Your task to perform on an android device: Open display settings Image 0: 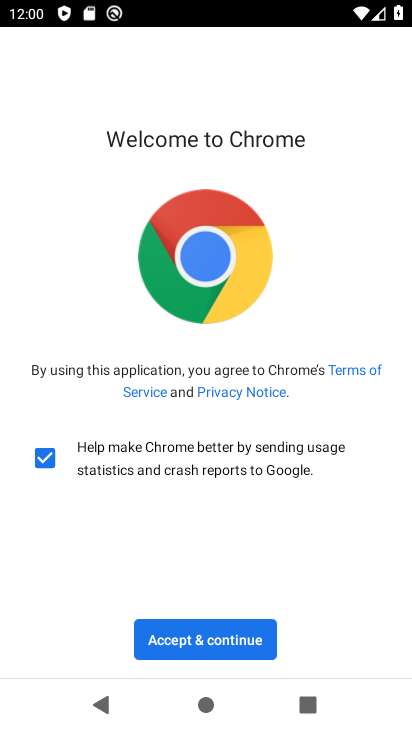
Step 0: press home button
Your task to perform on an android device: Open display settings Image 1: 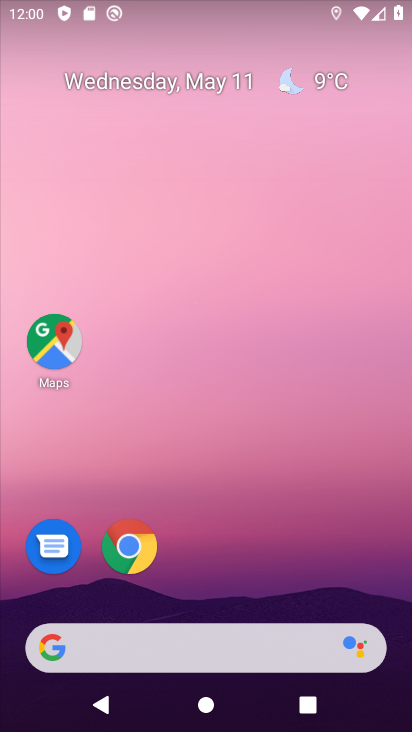
Step 1: drag from (196, 601) to (298, 179)
Your task to perform on an android device: Open display settings Image 2: 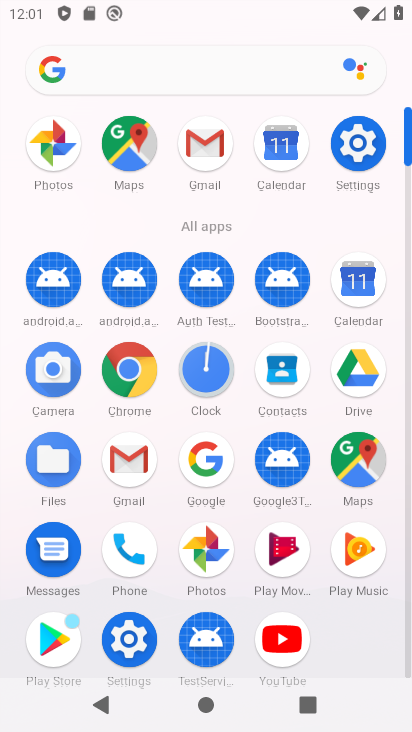
Step 2: click (354, 140)
Your task to perform on an android device: Open display settings Image 3: 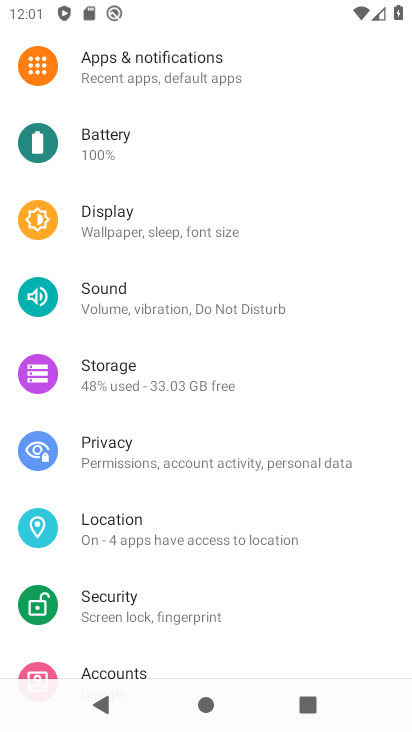
Step 3: click (126, 212)
Your task to perform on an android device: Open display settings Image 4: 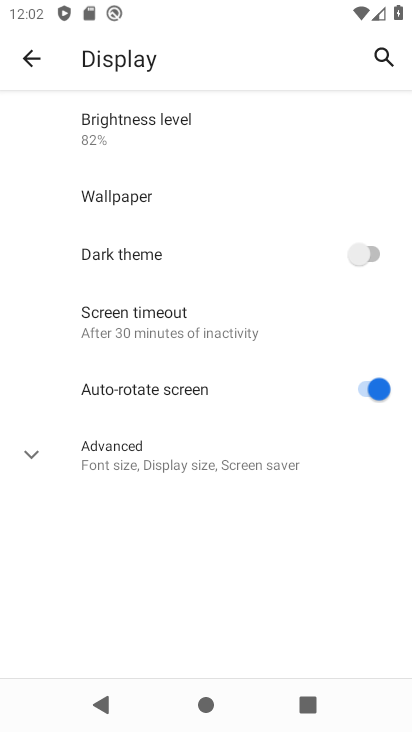
Step 4: task complete